Your task to perform on an android device: set the timer Image 0: 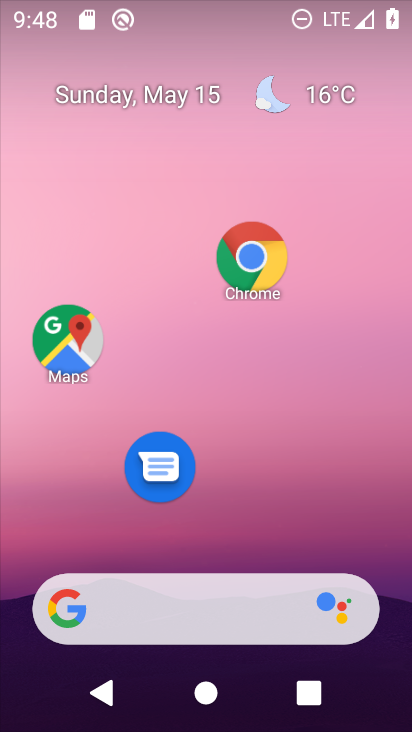
Step 0: drag from (208, 552) to (285, 5)
Your task to perform on an android device: set the timer Image 1: 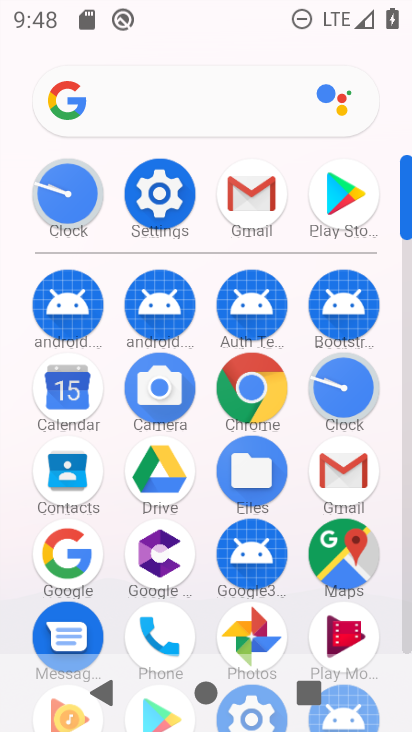
Step 1: click (90, 202)
Your task to perform on an android device: set the timer Image 2: 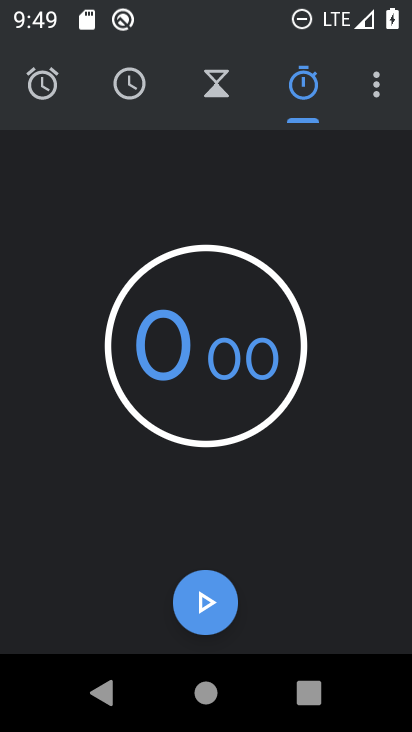
Step 2: click (216, 117)
Your task to perform on an android device: set the timer Image 3: 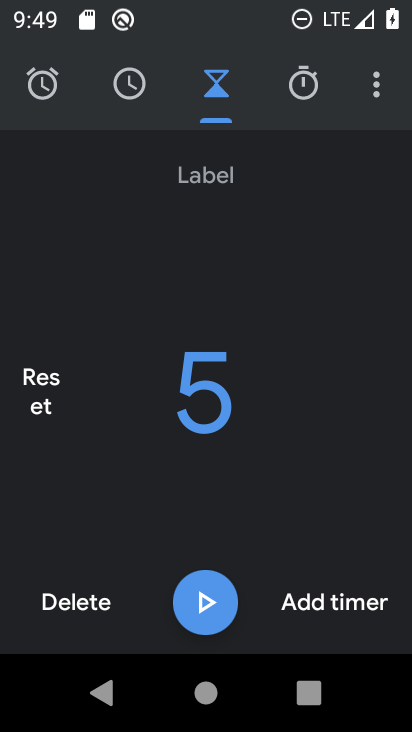
Step 3: click (202, 588)
Your task to perform on an android device: set the timer Image 4: 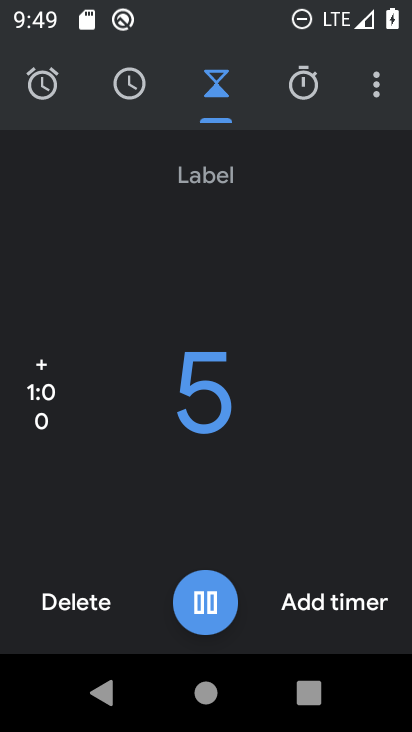
Step 4: task complete